Your task to perform on an android device: turn off priority inbox in the gmail app Image 0: 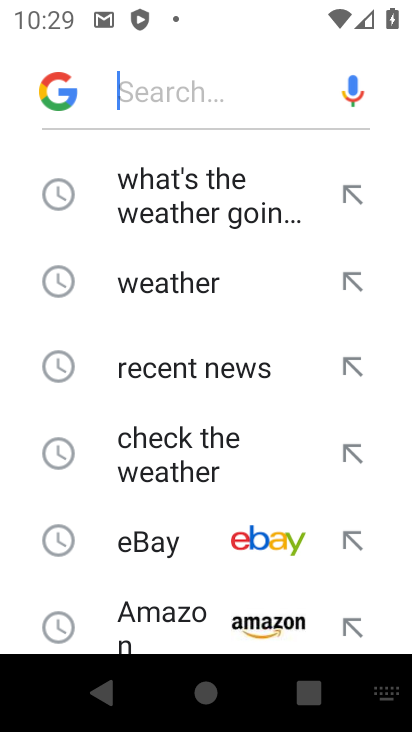
Step 0: press home button
Your task to perform on an android device: turn off priority inbox in the gmail app Image 1: 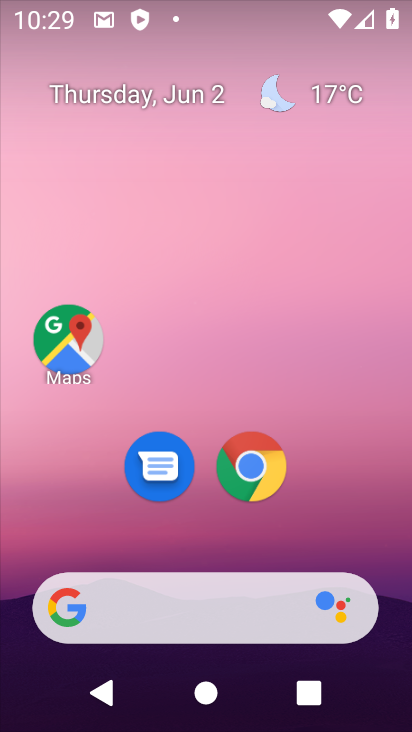
Step 1: drag from (303, 549) to (280, 13)
Your task to perform on an android device: turn off priority inbox in the gmail app Image 2: 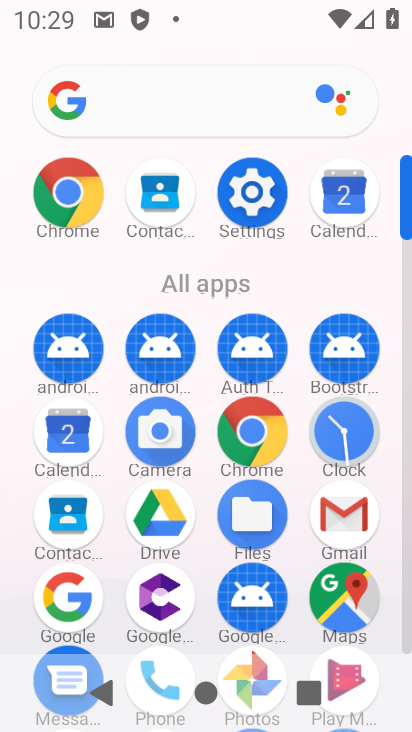
Step 2: click (357, 518)
Your task to perform on an android device: turn off priority inbox in the gmail app Image 3: 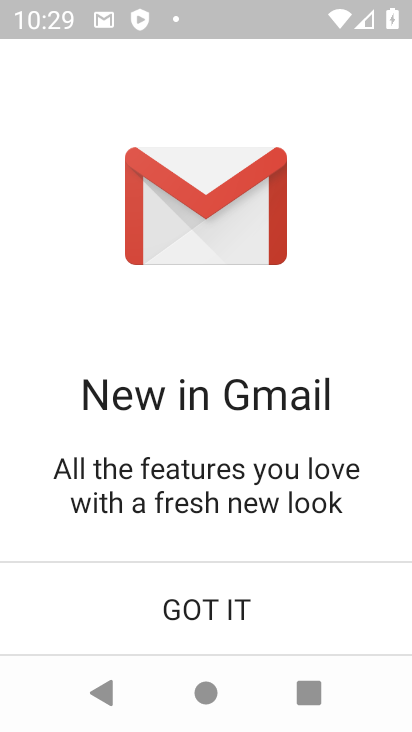
Step 3: click (142, 614)
Your task to perform on an android device: turn off priority inbox in the gmail app Image 4: 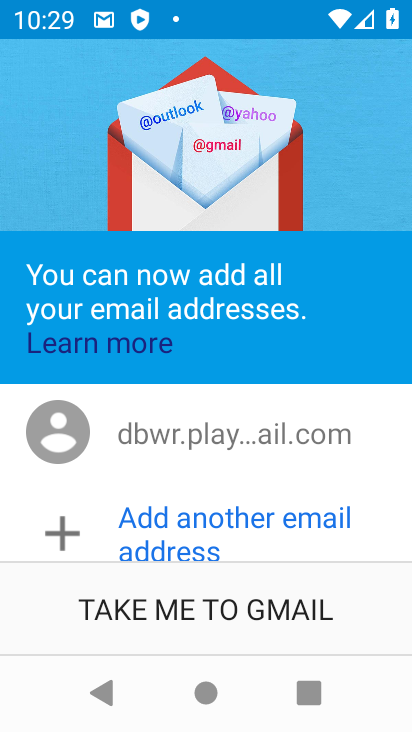
Step 4: click (204, 606)
Your task to perform on an android device: turn off priority inbox in the gmail app Image 5: 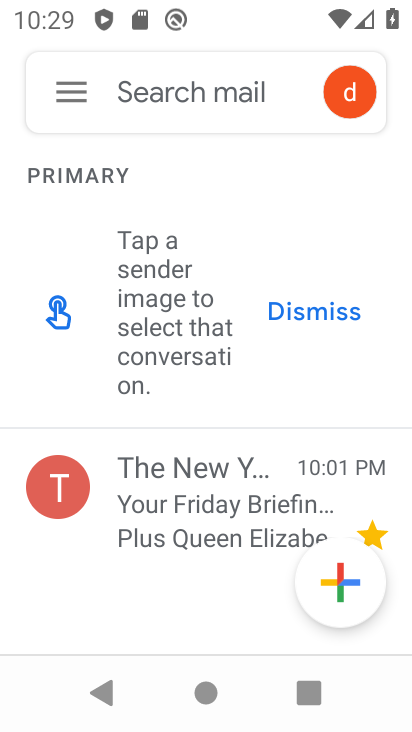
Step 5: click (71, 99)
Your task to perform on an android device: turn off priority inbox in the gmail app Image 6: 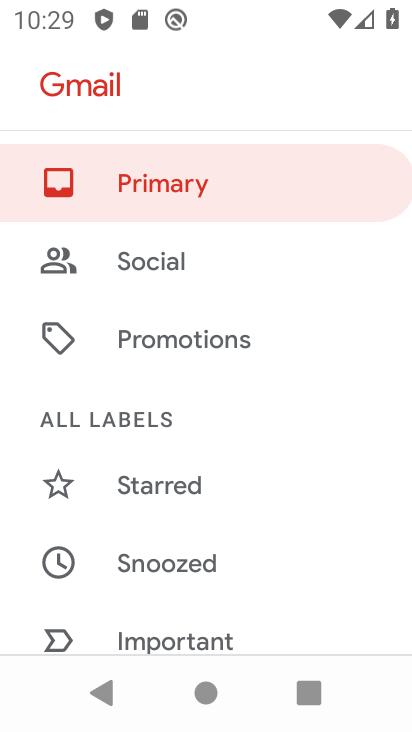
Step 6: drag from (285, 604) to (337, 130)
Your task to perform on an android device: turn off priority inbox in the gmail app Image 7: 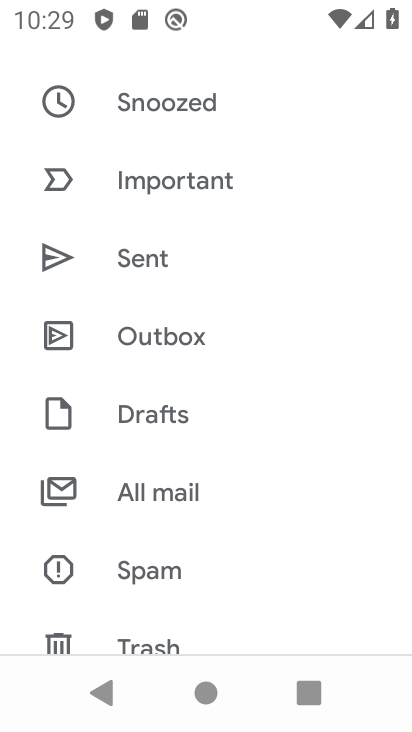
Step 7: drag from (298, 538) to (336, 20)
Your task to perform on an android device: turn off priority inbox in the gmail app Image 8: 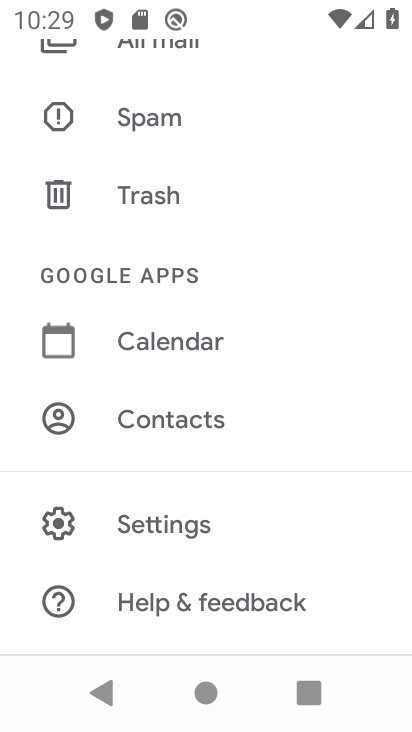
Step 8: click (165, 517)
Your task to perform on an android device: turn off priority inbox in the gmail app Image 9: 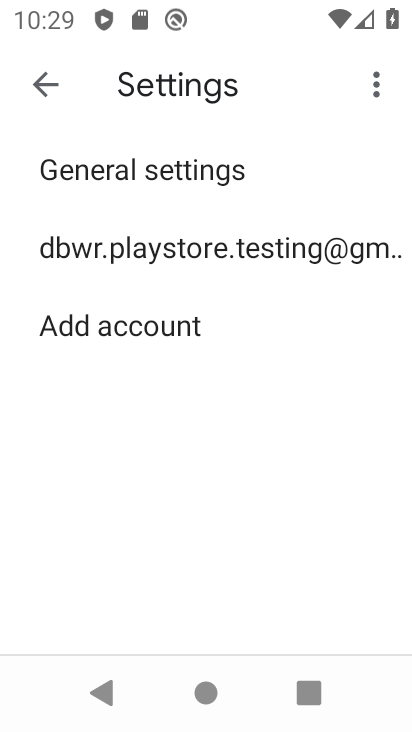
Step 9: click (193, 249)
Your task to perform on an android device: turn off priority inbox in the gmail app Image 10: 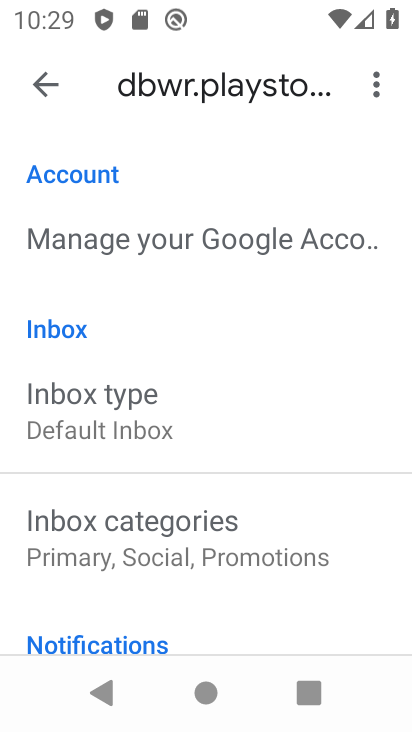
Step 10: click (82, 398)
Your task to perform on an android device: turn off priority inbox in the gmail app Image 11: 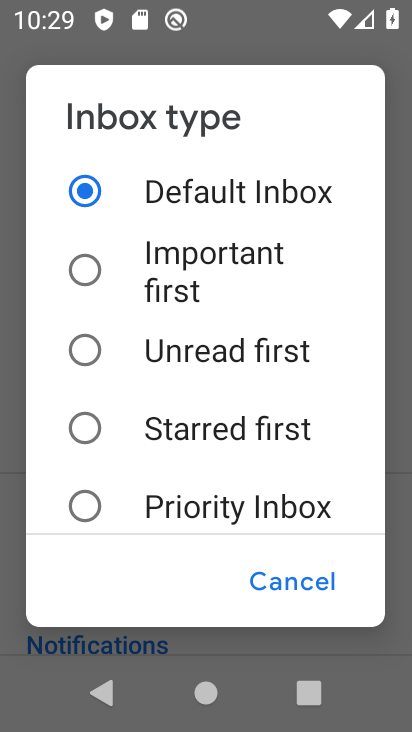
Step 11: task complete